Your task to perform on an android device: all mails in gmail Image 0: 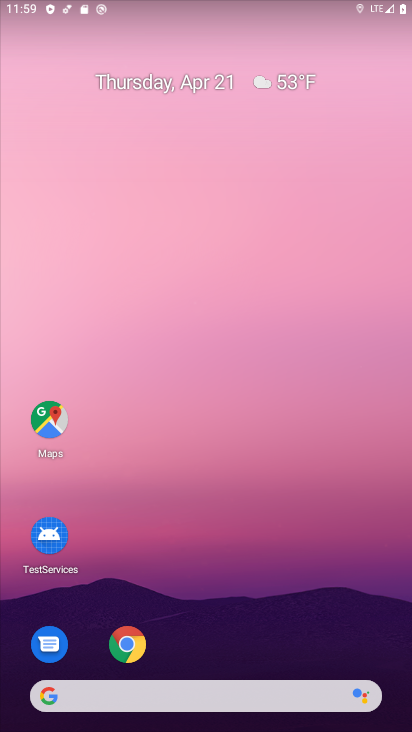
Step 0: drag from (277, 667) to (247, 192)
Your task to perform on an android device: all mails in gmail Image 1: 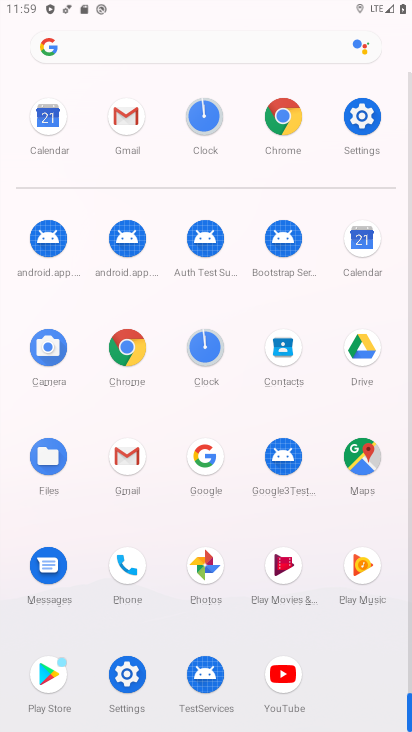
Step 1: click (122, 113)
Your task to perform on an android device: all mails in gmail Image 2: 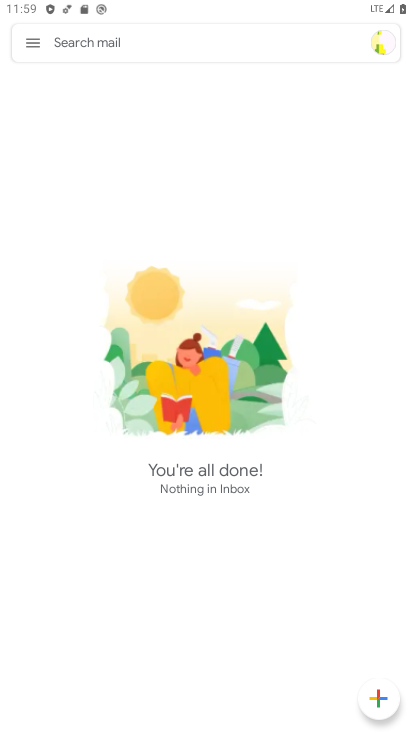
Step 2: click (24, 40)
Your task to perform on an android device: all mails in gmail Image 3: 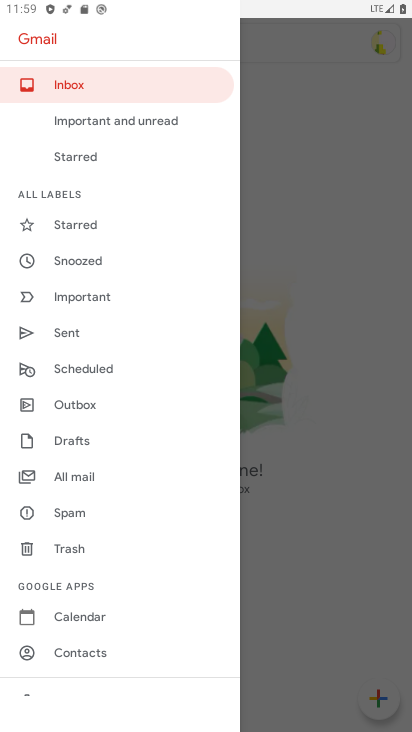
Step 3: click (83, 486)
Your task to perform on an android device: all mails in gmail Image 4: 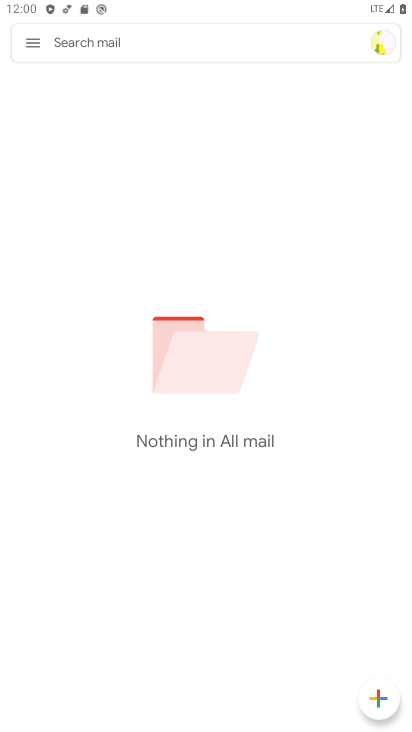
Step 4: task complete